Your task to perform on an android device: Open Reddit.com Image 0: 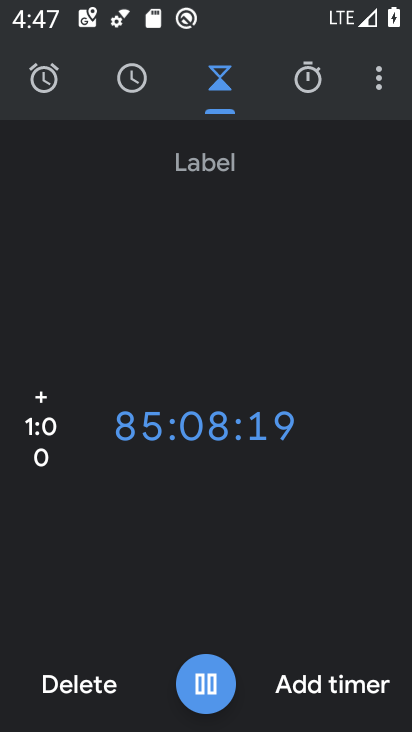
Step 0: press home button
Your task to perform on an android device: Open Reddit.com Image 1: 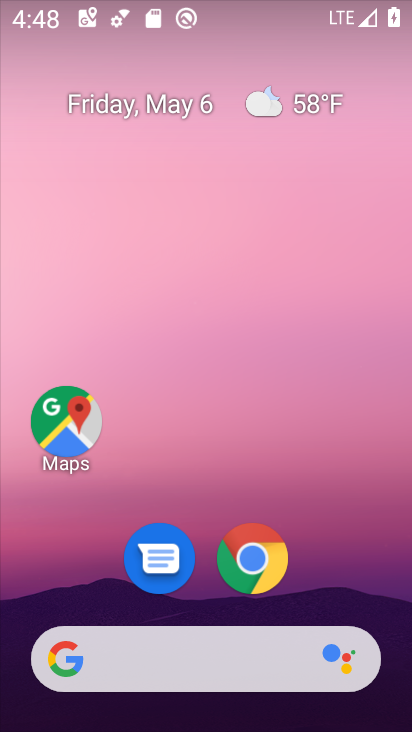
Step 1: click (216, 565)
Your task to perform on an android device: Open Reddit.com Image 2: 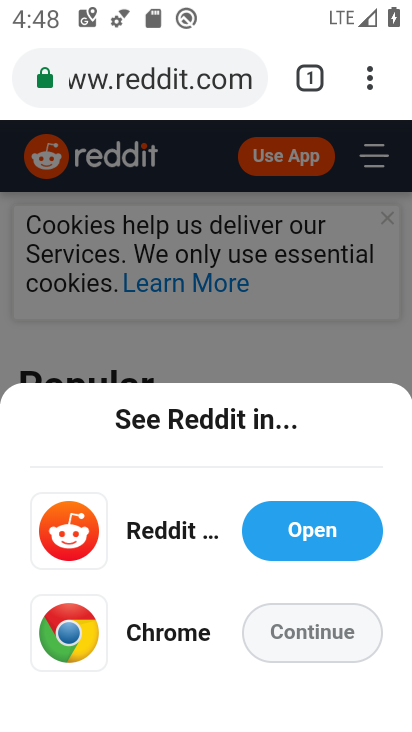
Step 2: click (214, 69)
Your task to perform on an android device: Open Reddit.com Image 3: 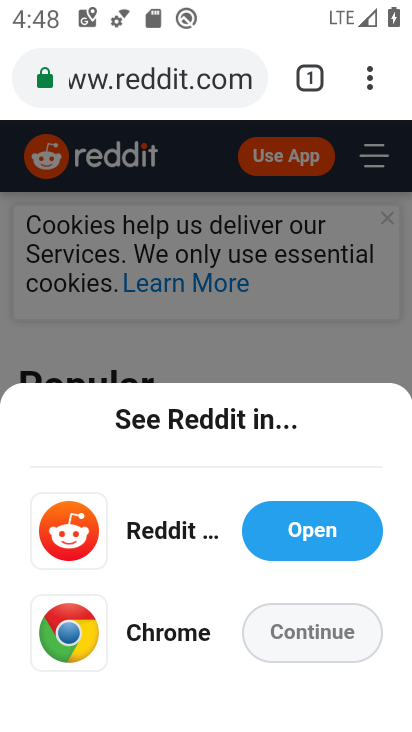
Step 3: click (214, 69)
Your task to perform on an android device: Open Reddit.com Image 4: 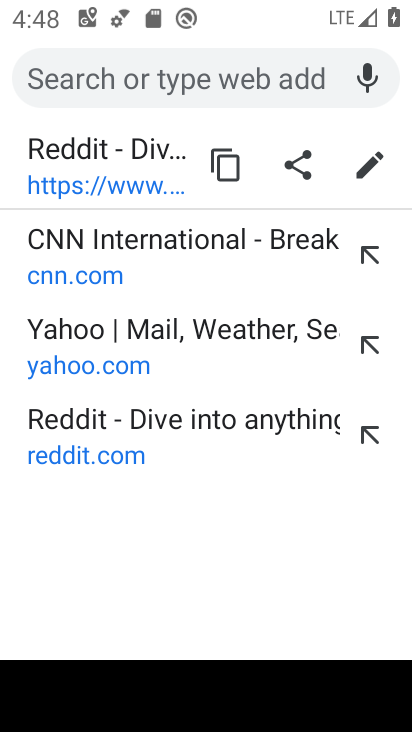
Step 4: click (140, 180)
Your task to perform on an android device: Open Reddit.com Image 5: 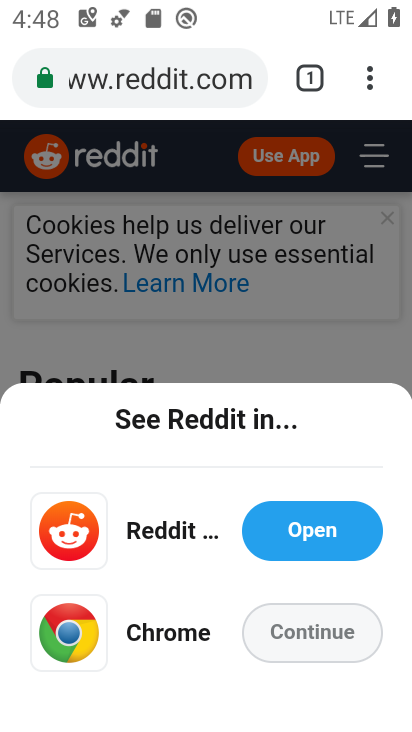
Step 5: task complete